Your task to perform on an android device: Open Google Chrome Image 0: 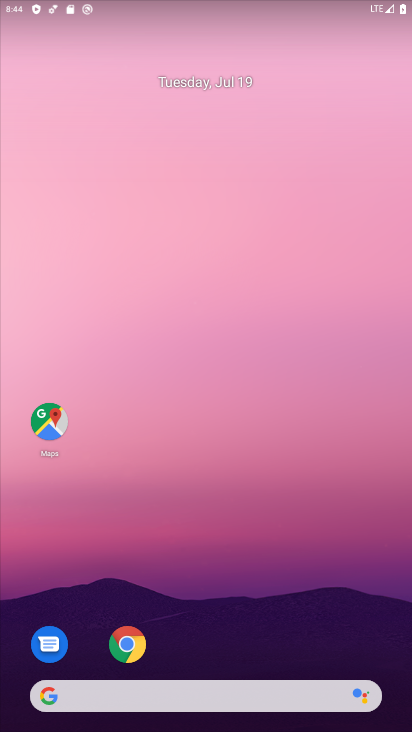
Step 0: click (131, 636)
Your task to perform on an android device: Open Google Chrome Image 1: 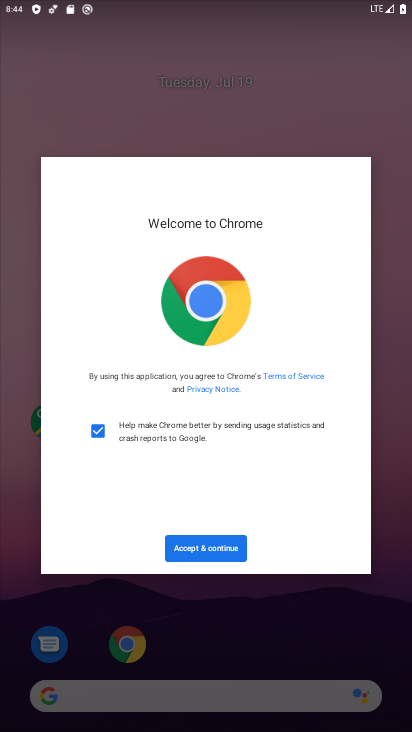
Step 1: click (232, 539)
Your task to perform on an android device: Open Google Chrome Image 2: 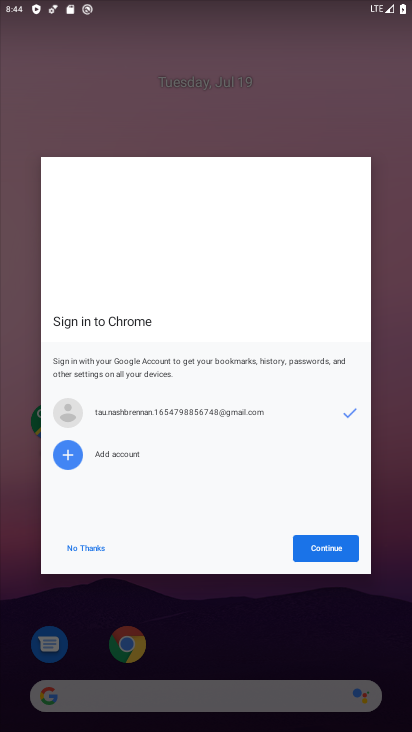
Step 2: click (334, 552)
Your task to perform on an android device: Open Google Chrome Image 3: 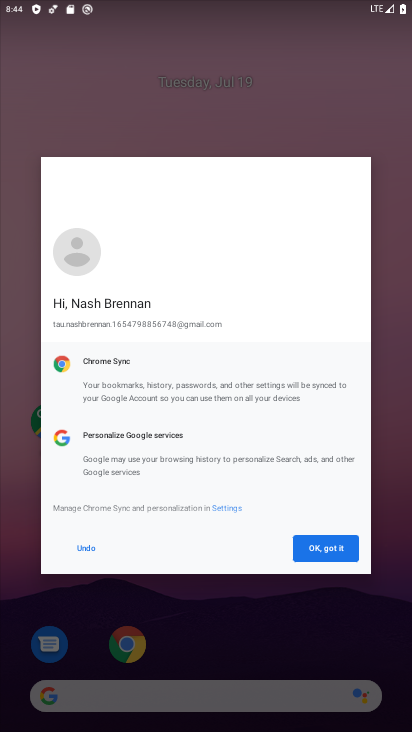
Step 3: click (334, 552)
Your task to perform on an android device: Open Google Chrome Image 4: 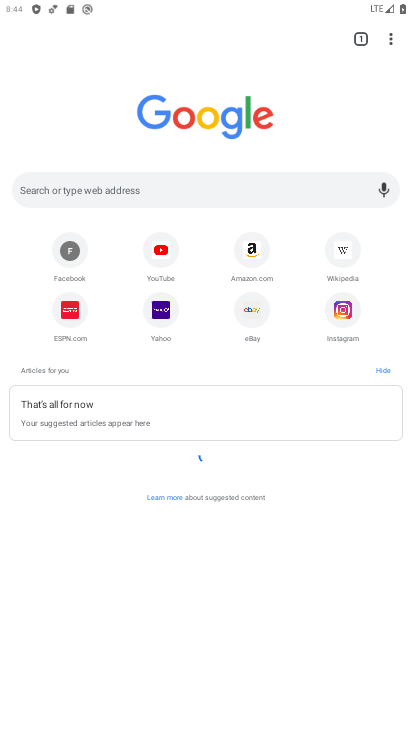
Step 4: task complete